Your task to perform on an android device: open wifi settings Image 0: 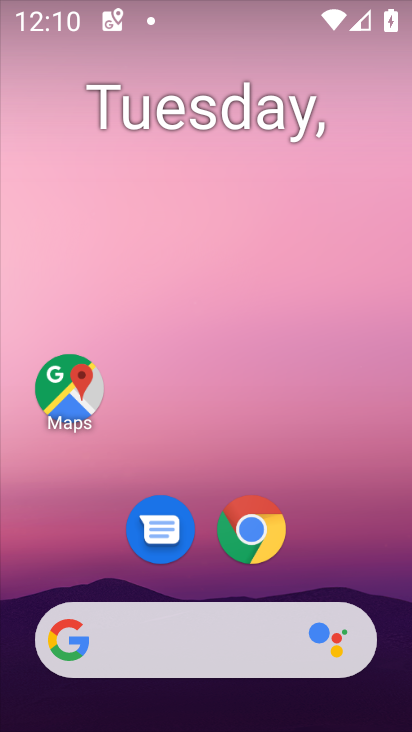
Step 0: press home button
Your task to perform on an android device: open wifi settings Image 1: 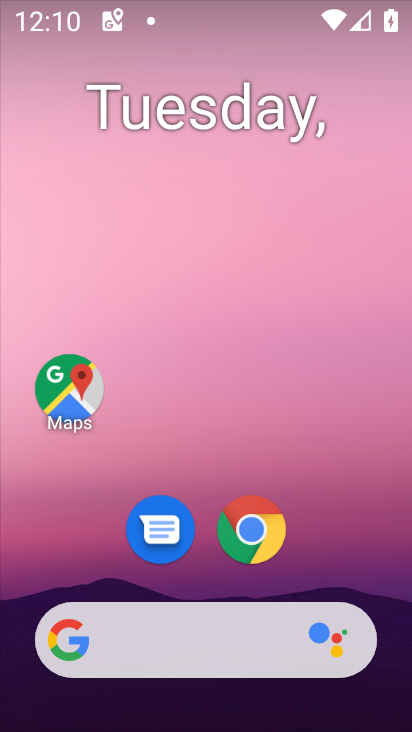
Step 1: drag from (225, 671) to (45, 3)
Your task to perform on an android device: open wifi settings Image 2: 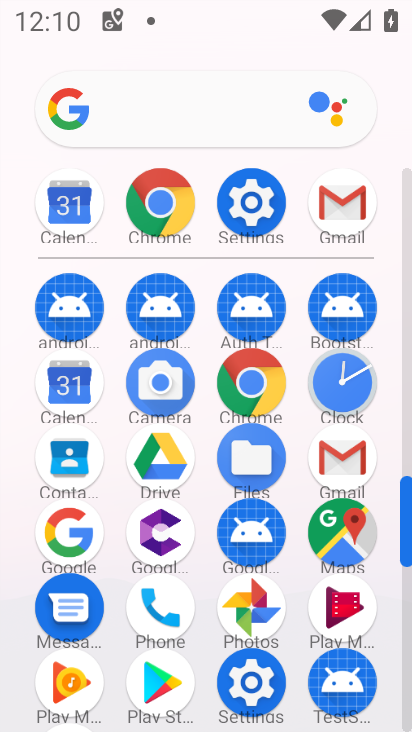
Step 2: click (275, 203)
Your task to perform on an android device: open wifi settings Image 3: 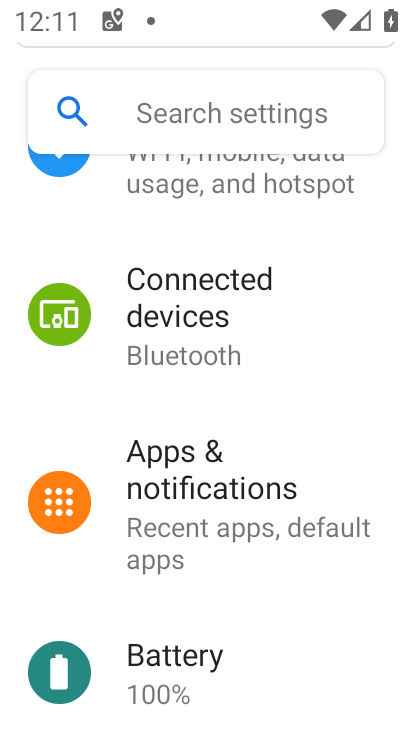
Step 3: click (215, 180)
Your task to perform on an android device: open wifi settings Image 4: 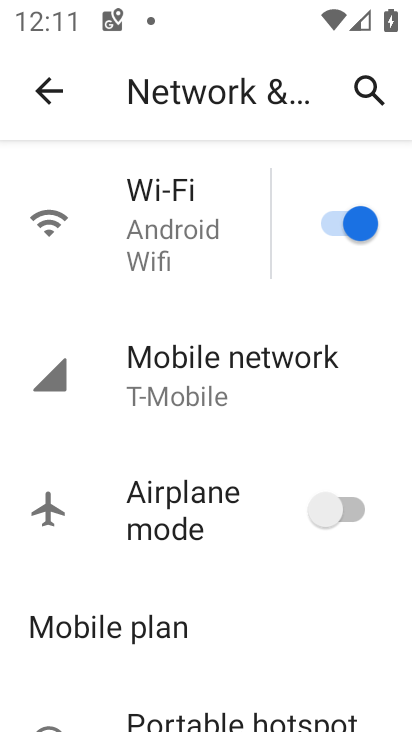
Step 4: click (166, 236)
Your task to perform on an android device: open wifi settings Image 5: 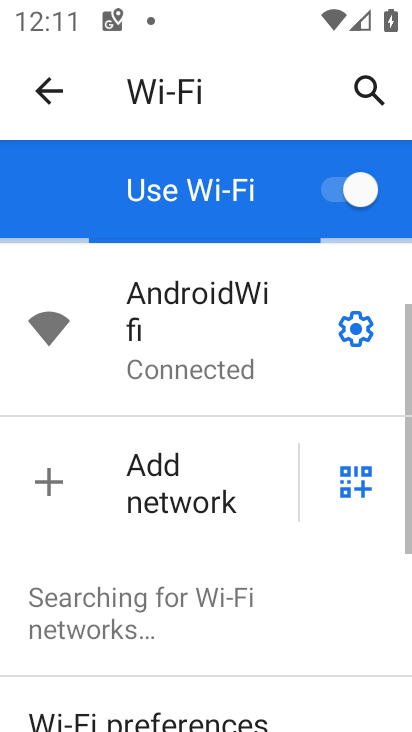
Step 5: task complete